Your task to perform on an android device: Open calendar and show me the second week of next month Image 0: 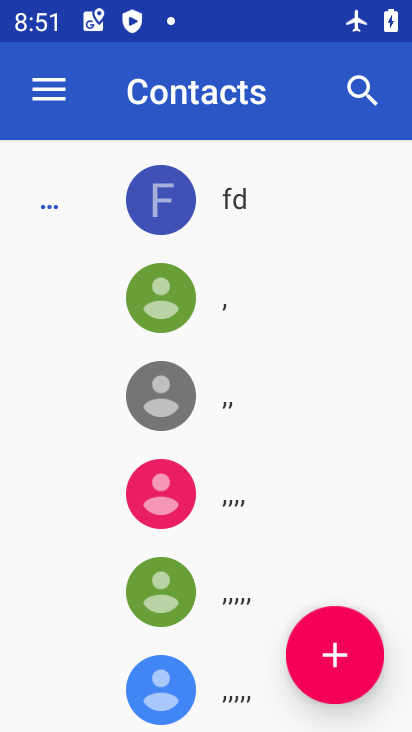
Step 0: press home button
Your task to perform on an android device: Open calendar and show me the second week of next month Image 1: 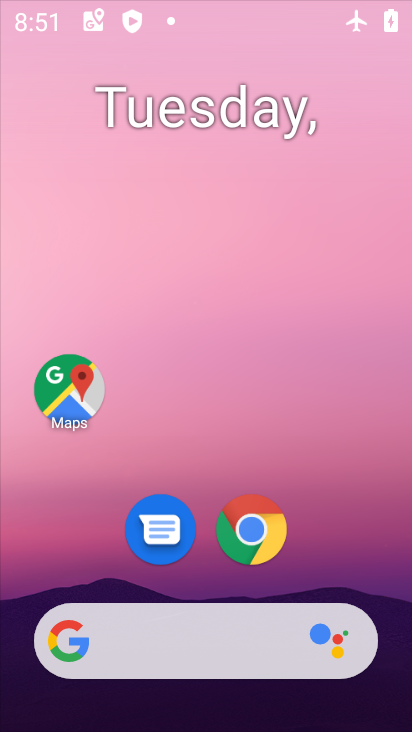
Step 1: drag from (266, 652) to (313, 1)
Your task to perform on an android device: Open calendar and show me the second week of next month Image 2: 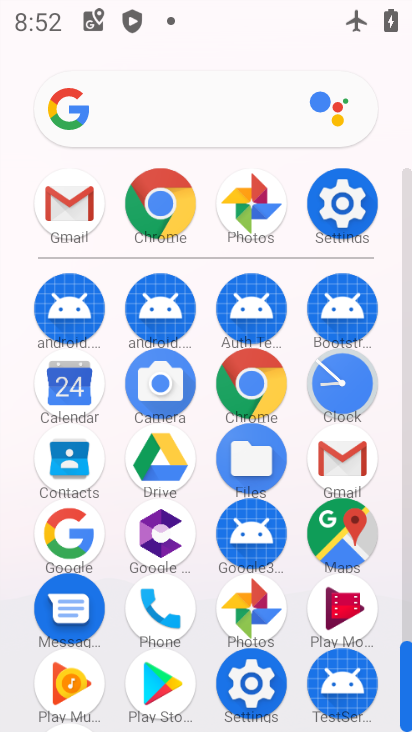
Step 2: click (71, 391)
Your task to perform on an android device: Open calendar and show me the second week of next month Image 3: 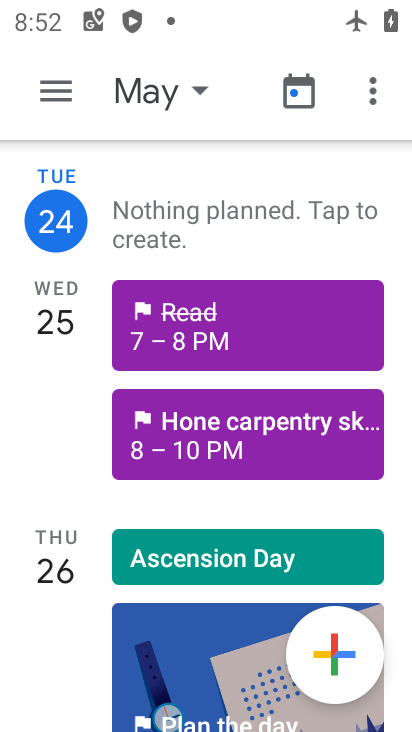
Step 3: click (173, 91)
Your task to perform on an android device: Open calendar and show me the second week of next month Image 4: 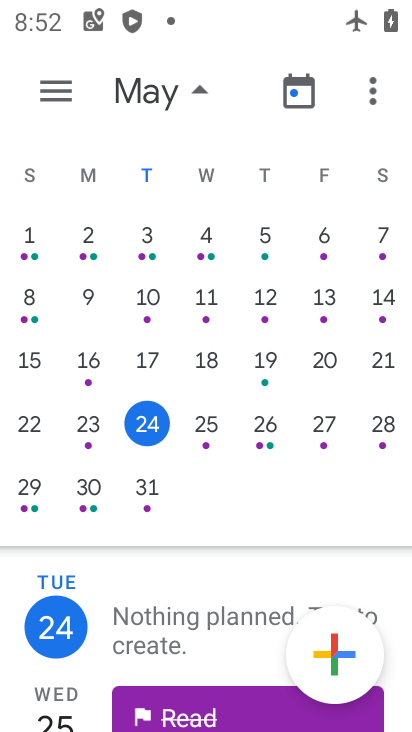
Step 4: drag from (339, 395) to (7, 537)
Your task to perform on an android device: Open calendar and show me the second week of next month Image 5: 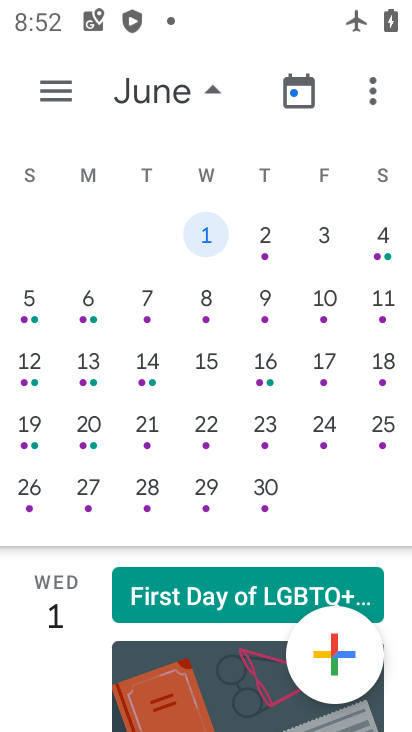
Step 5: click (34, 317)
Your task to perform on an android device: Open calendar and show me the second week of next month Image 6: 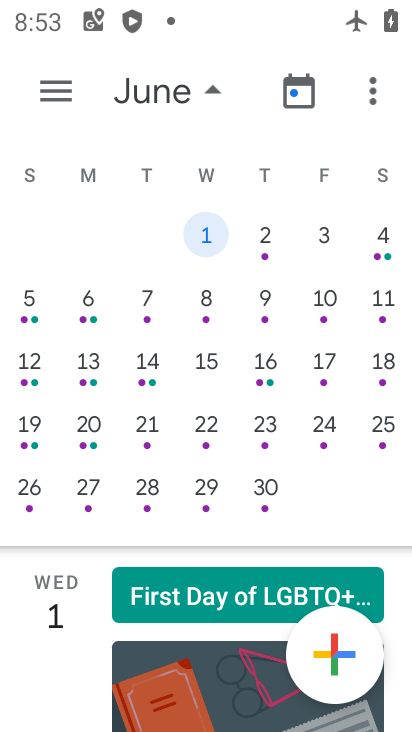
Step 6: click (34, 308)
Your task to perform on an android device: Open calendar and show me the second week of next month Image 7: 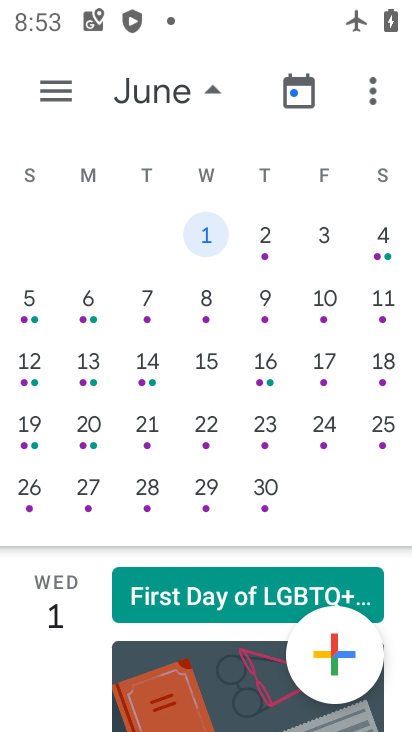
Step 7: click (36, 318)
Your task to perform on an android device: Open calendar and show me the second week of next month Image 8: 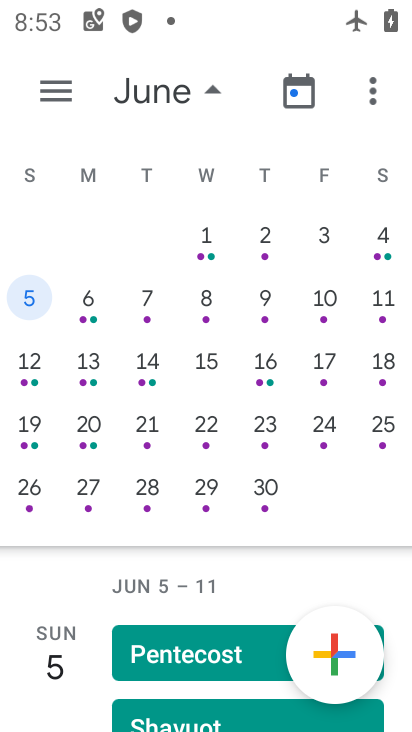
Step 8: task complete